Your task to perform on an android device: turn off priority inbox in the gmail app Image 0: 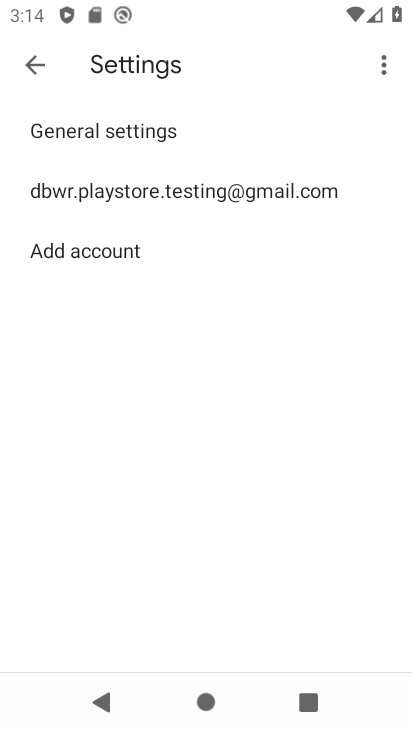
Step 0: press home button
Your task to perform on an android device: turn off priority inbox in the gmail app Image 1: 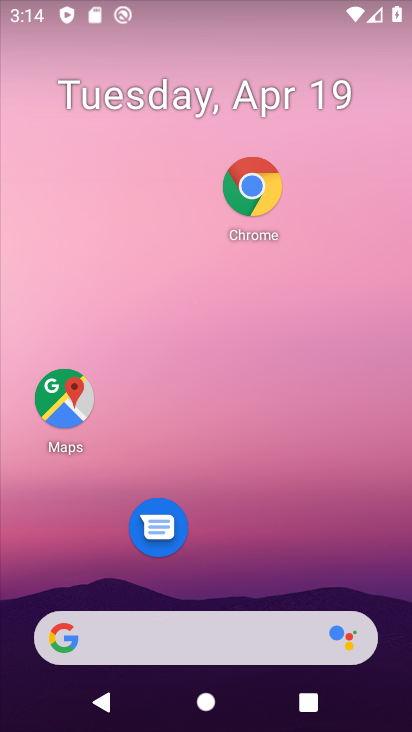
Step 1: drag from (301, 532) to (282, 275)
Your task to perform on an android device: turn off priority inbox in the gmail app Image 2: 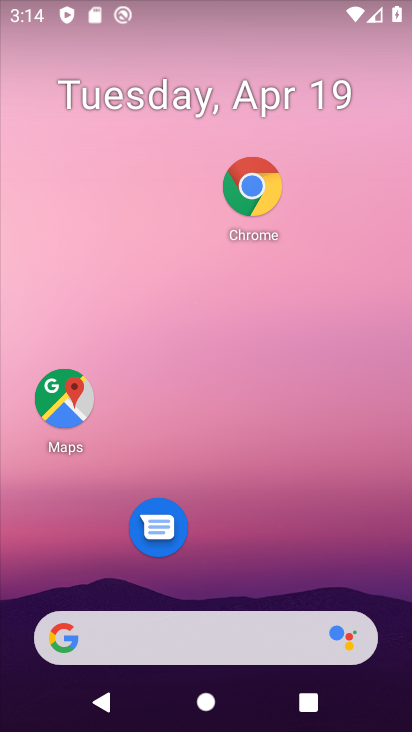
Step 2: drag from (254, 470) to (255, 353)
Your task to perform on an android device: turn off priority inbox in the gmail app Image 3: 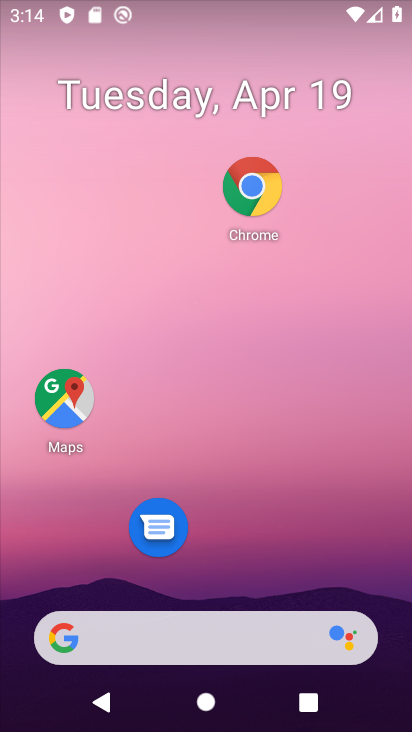
Step 3: drag from (294, 597) to (328, 212)
Your task to perform on an android device: turn off priority inbox in the gmail app Image 4: 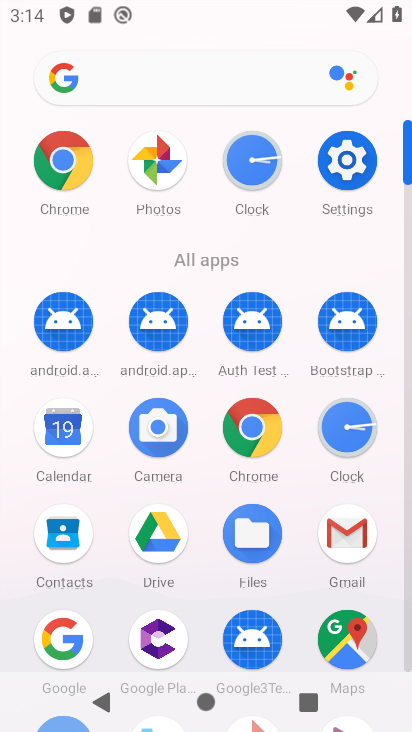
Step 4: click (353, 519)
Your task to perform on an android device: turn off priority inbox in the gmail app Image 5: 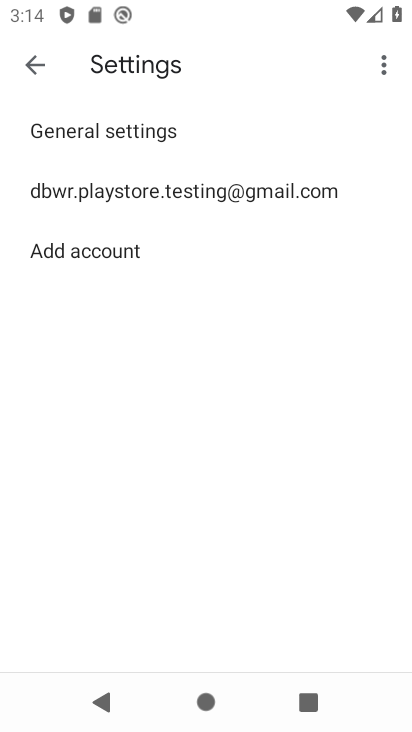
Step 5: click (246, 189)
Your task to perform on an android device: turn off priority inbox in the gmail app Image 6: 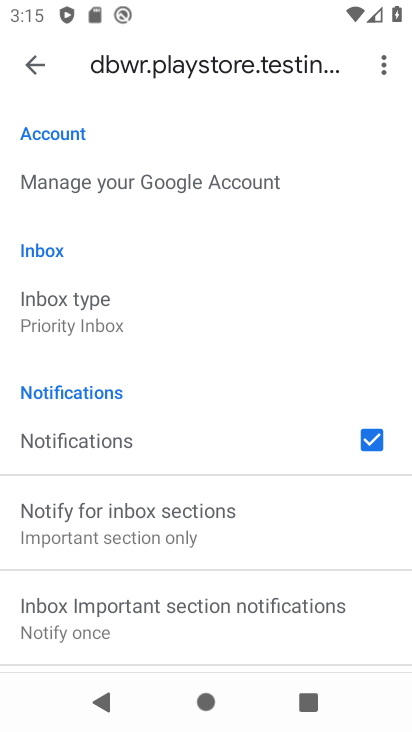
Step 6: click (101, 303)
Your task to perform on an android device: turn off priority inbox in the gmail app Image 7: 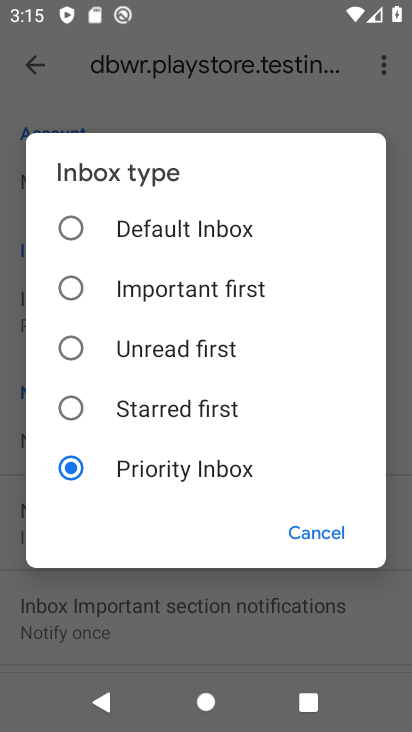
Step 7: click (160, 230)
Your task to perform on an android device: turn off priority inbox in the gmail app Image 8: 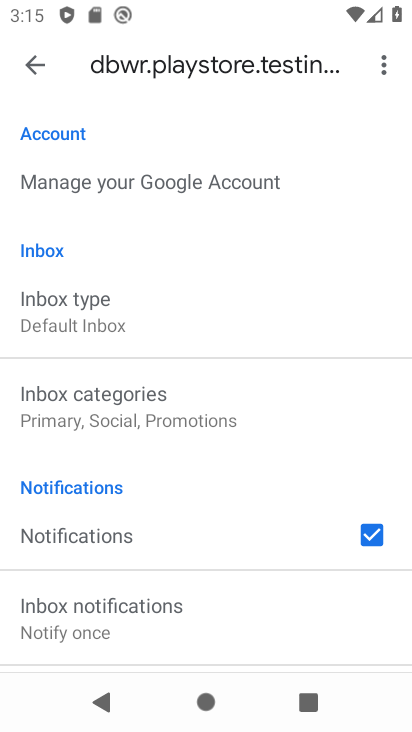
Step 8: task complete